Your task to perform on an android device: turn on the 24-hour format for clock Image 0: 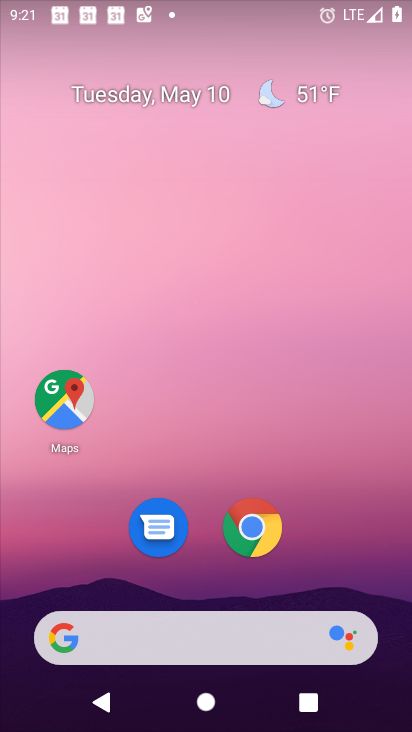
Step 0: drag from (214, 582) to (300, 30)
Your task to perform on an android device: turn on the 24-hour format for clock Image 1: 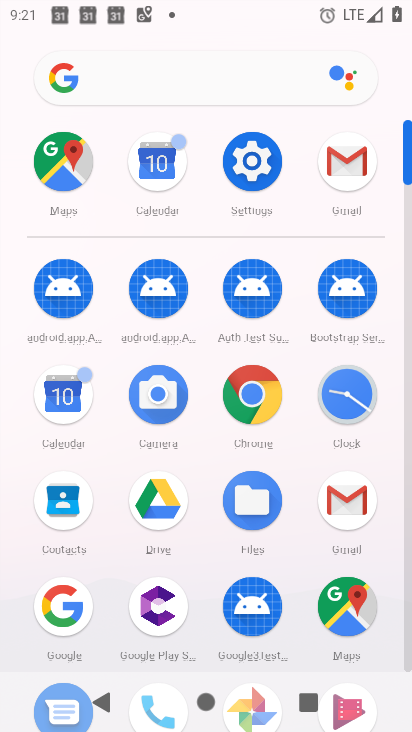
Step 1: click (356, 414)
Your task to perform on an android device: turn on the 24-hour format for clock Image 2: 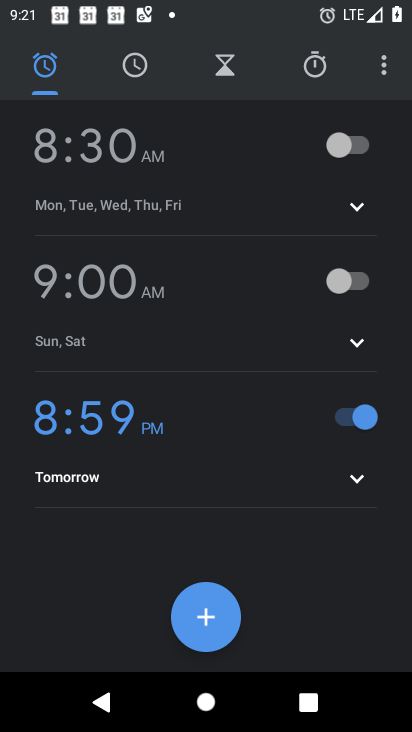
Step 2: click (382, 79)
Your task to perform on an android device: turn on the 24-hour format for clock Image 3: 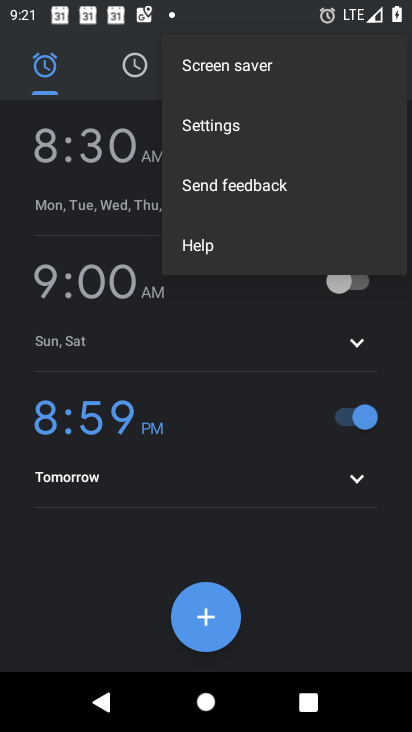
Step 3: click (244, 122)
Your task to perform on an android device: turn on the 24-hour format for clock Image 4: 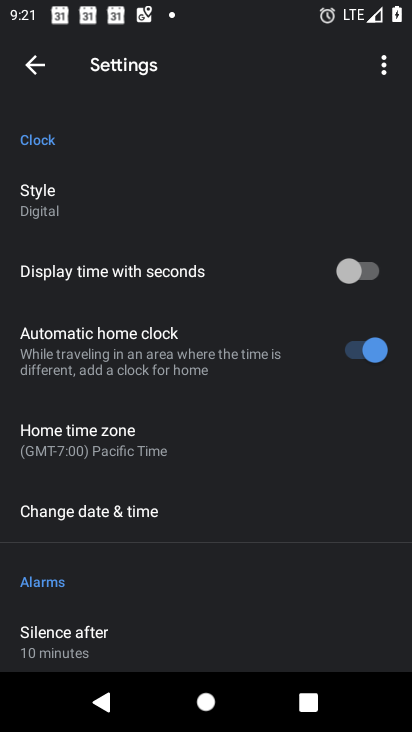
Step 4: click (143, 502)
Your task to perform on an android device: turn on the 24-hour format for clock Image 5: 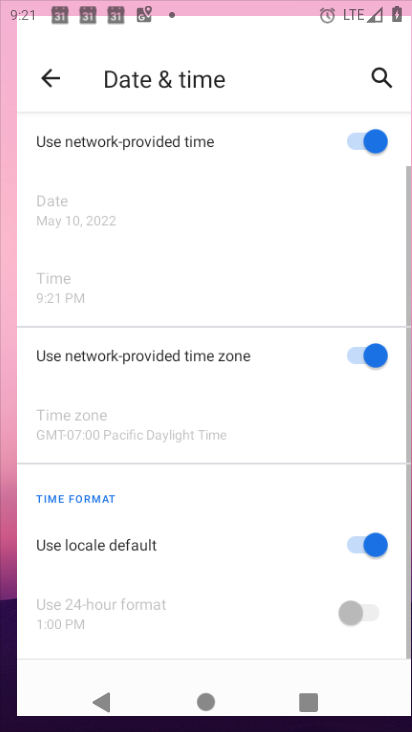
Step 5: drag from (143, 502) to (107, 19)
Your task to perform on an android device: turn on the 24-hour format for clock Image 6: 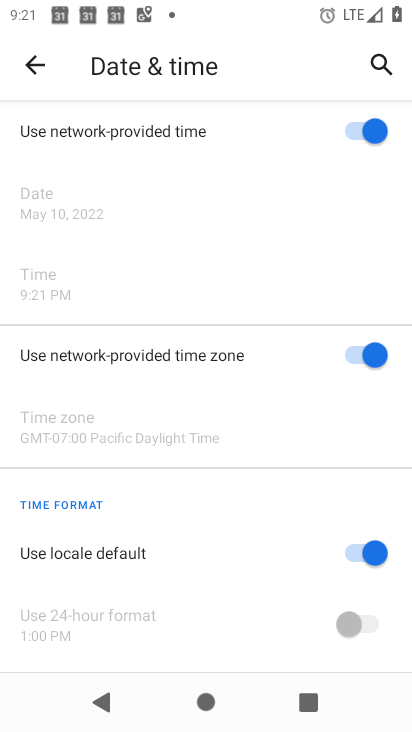
Step 6: click (372, 552)
Your task to perform on an android device: turn on the 24-hour format for clock Image 7: 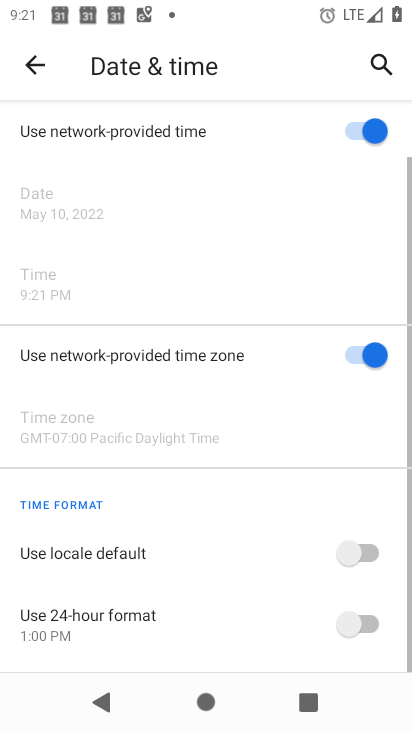
Step 7: click (368, 630)
Your task to perform on an android device: turn on the 24-hour format for clock Image 8: 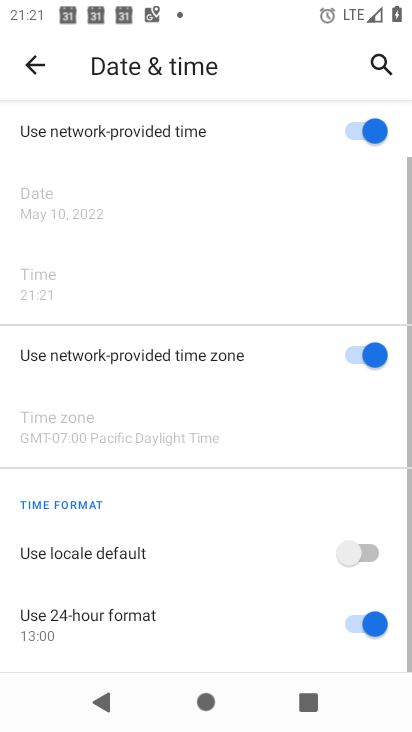
Step 8: task complete